Your task to perform on an android device: change alarm snooze length Image 0: 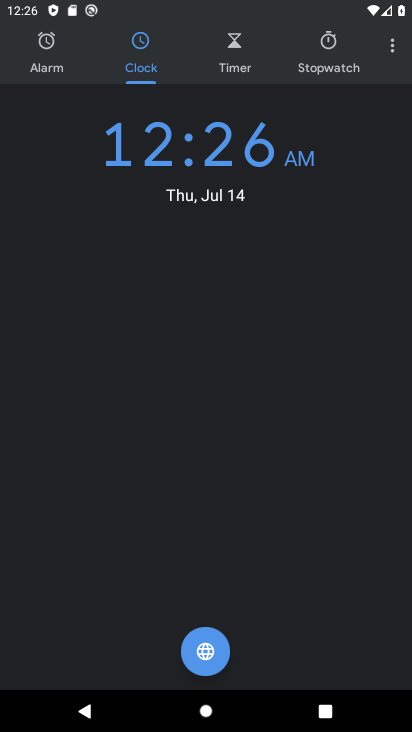
Step 0: press home button
Your task to perform on an android device: change alarm snooze length Image 1: 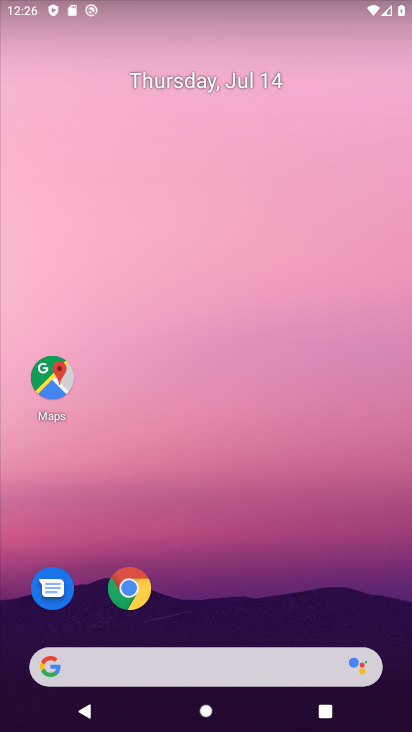
Step 1: drag from (186, 591) to (345, 80)
Your task to perform on an android device: change alarm snooze length Image 2: 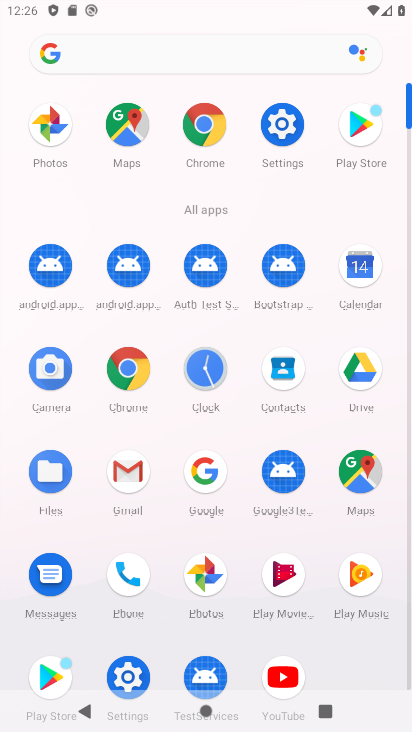
Step 2: click (209, 358)
Your task to perform on an android device: change alarm snooze length Image 3: 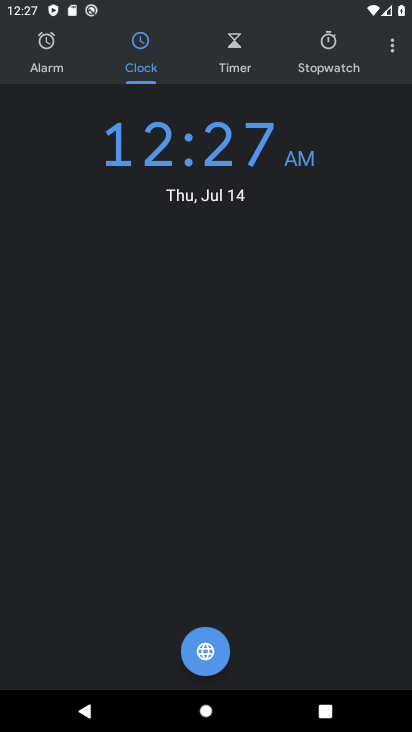
Step 3: click (393, 46)
Your task to perform on an android device: change alarm snooze length Image 4: 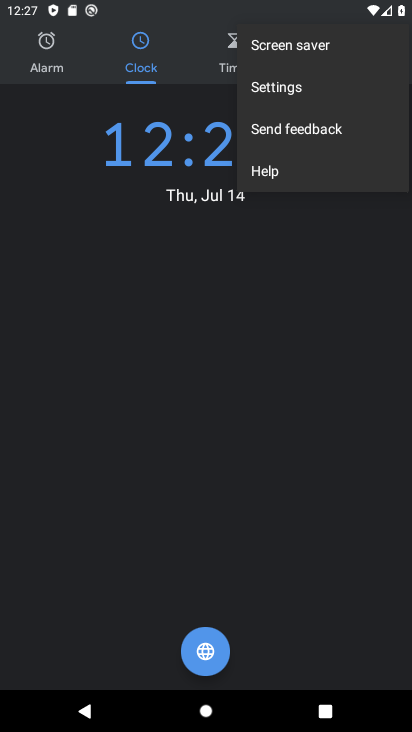
Step 4: click (275, 90)
Your task to perform on an android device: change alarm snooze length Image 5: 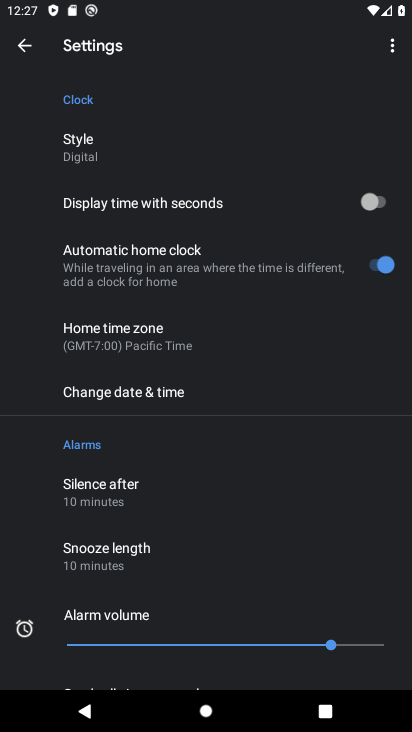
Step 5: click (108, 560)
Your task to perform on an android device: change alarm snooze length Image 6: 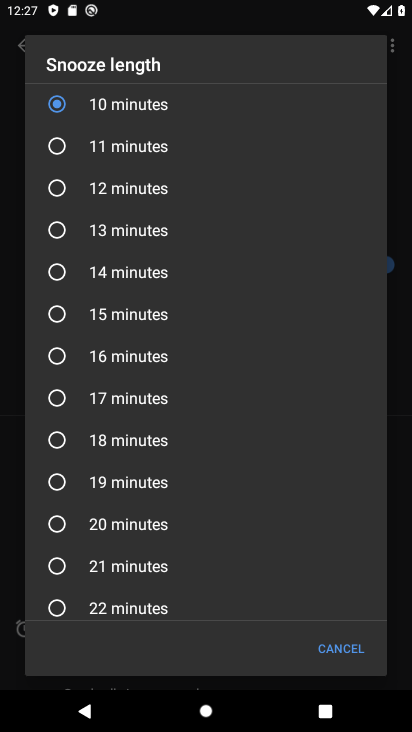
Step 6: click (62, 314)
Your task to perform on an android device: change alarm snooze length Image 7: 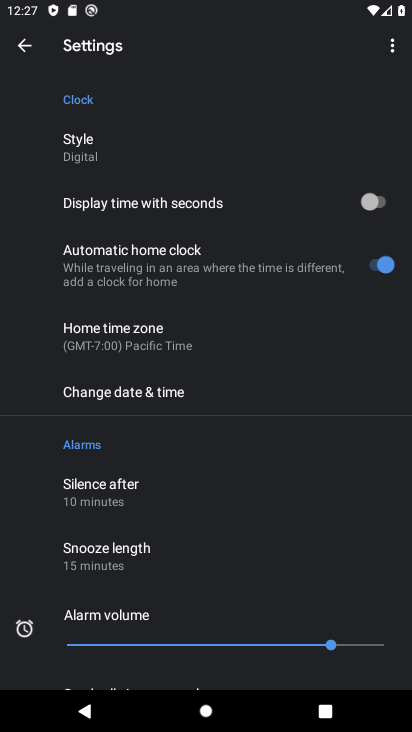
Step 7: task complete